Your task to perform on an android device: Go to location settings Image 0: 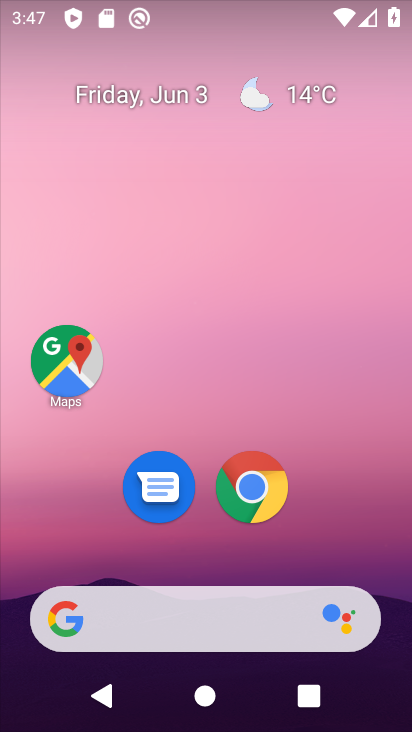
Step 0: drag from (194, 588) to (289, 29)
Your task to perform on an android device: Go to location settings Image 1: 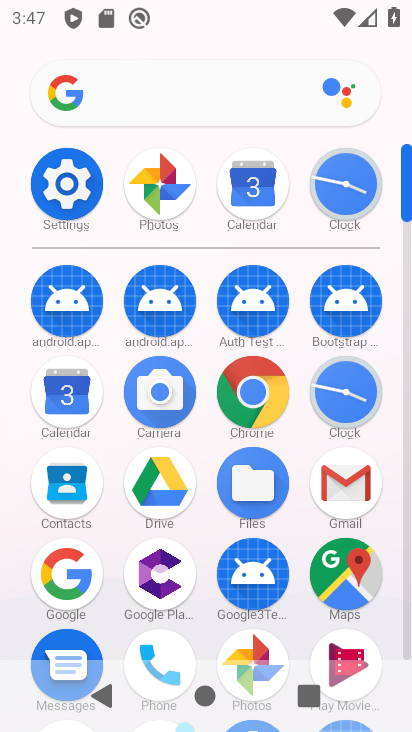
Step 1: click (78, 171)
Your task to perform on an android device: Go to location settings Image 2: 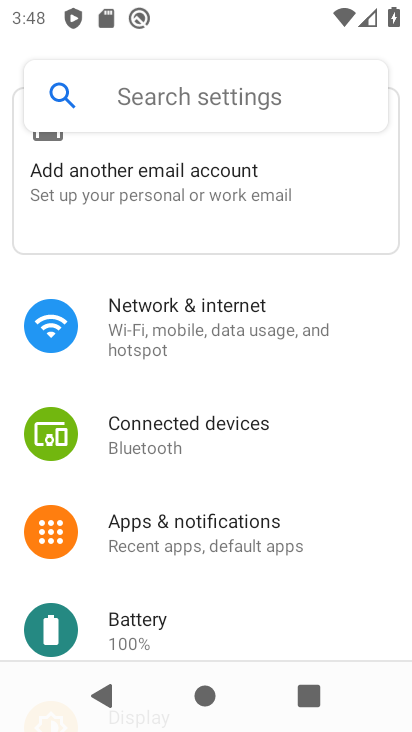
Step 2: drag from (201, 520) to (241, 172)
Your task to perform on an android device: Go to location settings Image 3: 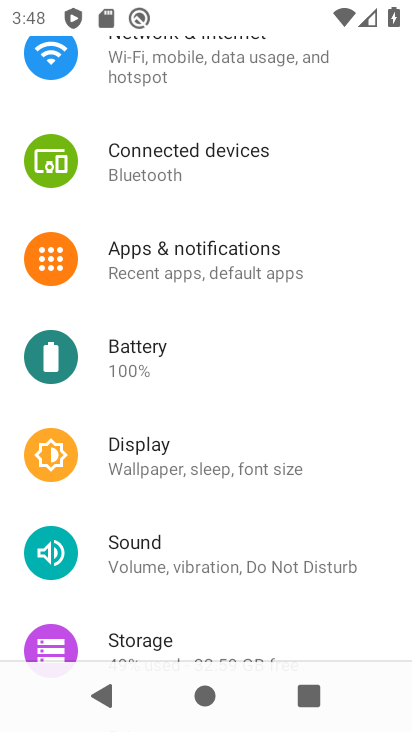
Step 3: drag from (140, 608) to (188, 122)
Your task to perform on an android device: Go to location settings Image 4: 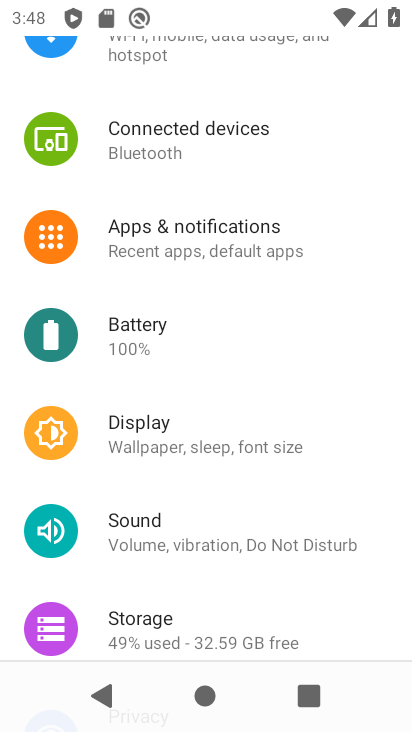
Step 4: drag from (213, 534) to (264, 109)
Your task to perform on an android device: Go to location settings Image 5: 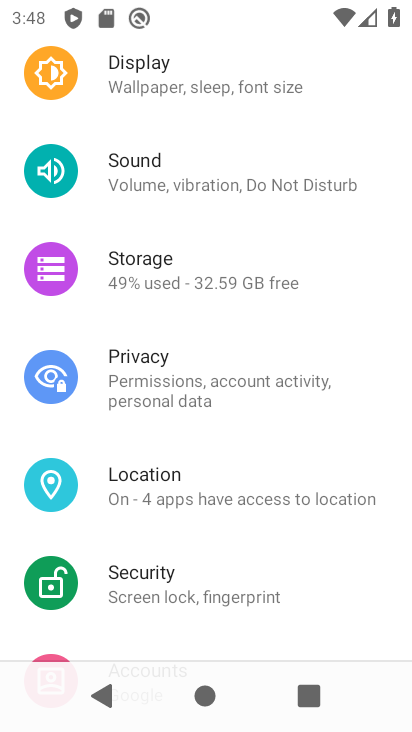
Step 5: click (160, 493)
Your task to perform on an android device: Go to location settings Image 6: 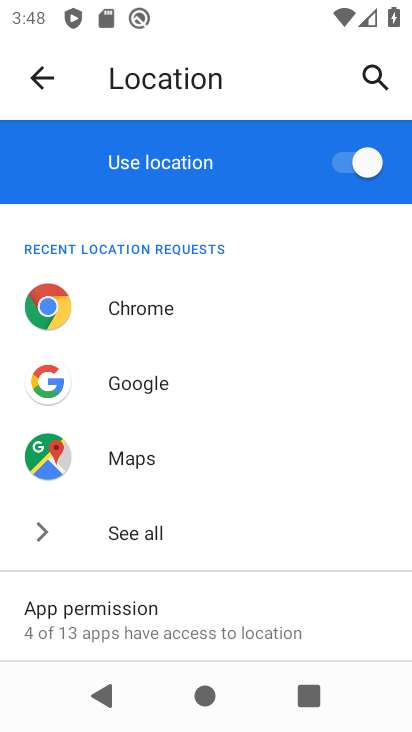
Step 6: task complete